Your task to perform on an android device: open chrome and create a bookmark for the current page Image 0: 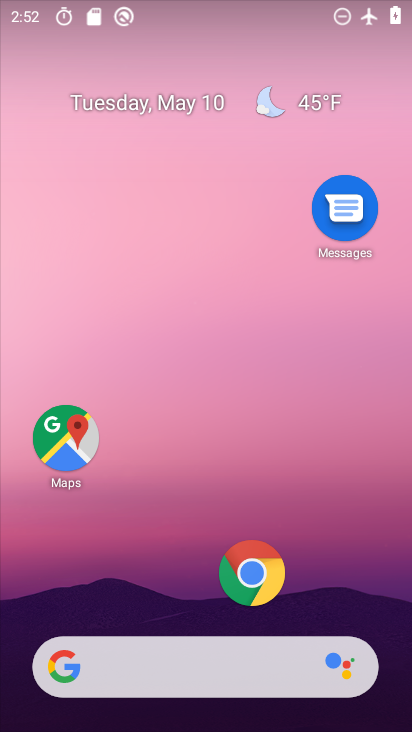
Step 0: drag from (149, 602) to (230, 337)
Your task to perform on an android device: open chrome and create a bookmark for the current page Image 1: 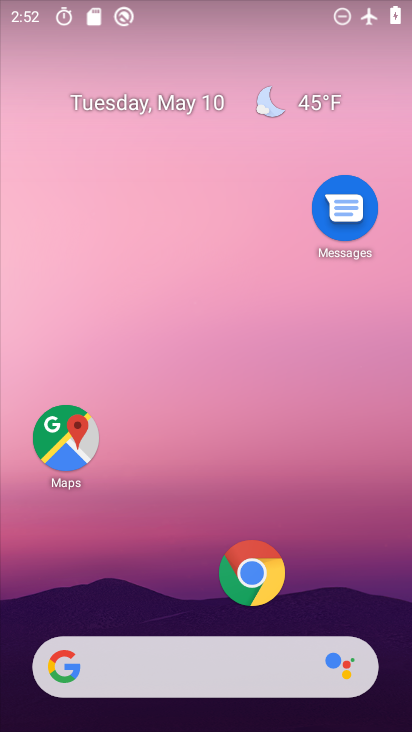
Step 1: drag from (167, 619) to (203, 316)
Your task to perform on an android device: open chrome and create a bookmark for the current page Image 2: 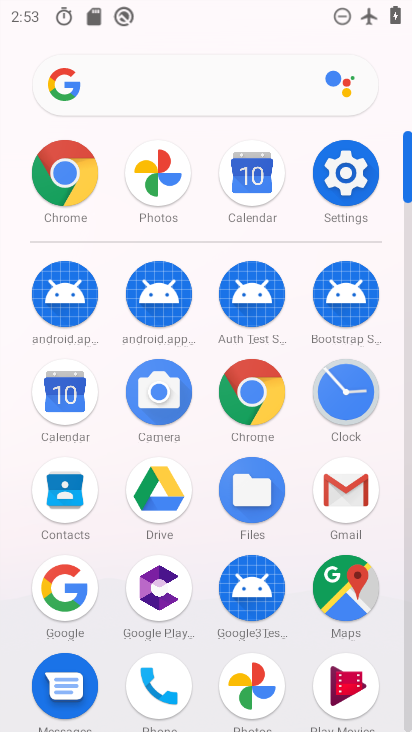
Step 2: drag from (201, 619) to (194, 42)
Your task to perform on an android device: open chrome and create a bookmark for the current page Image 3: 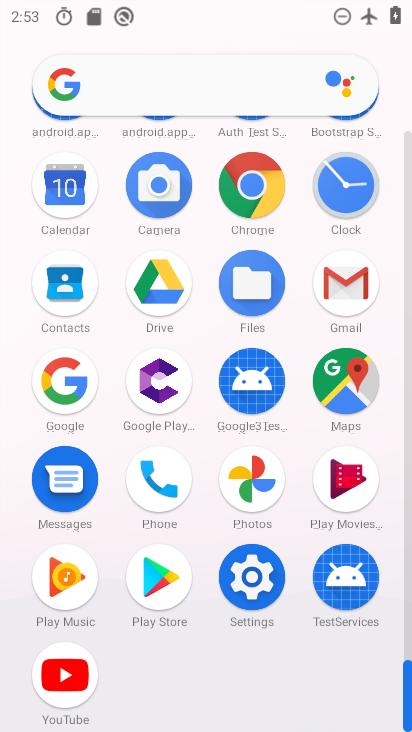
Step 3: click (260, 184)
Your task to perform on an android device: open chrome and create a bookmark for the current page Image 4: 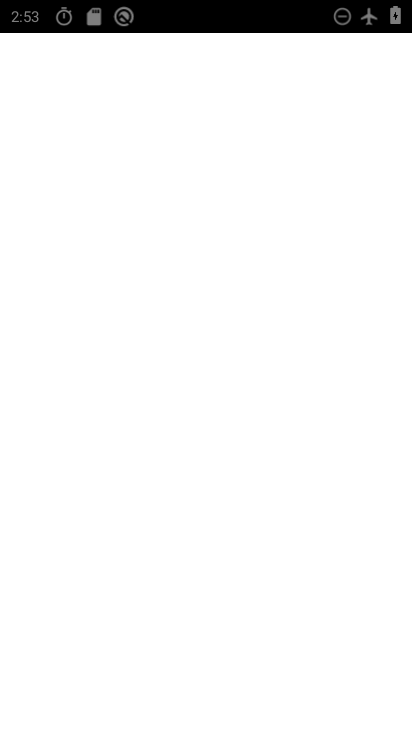
Step 4: click (260, 184)
Your task to perform on an android device: open chrome and create a bookmark for the current page Image 5: 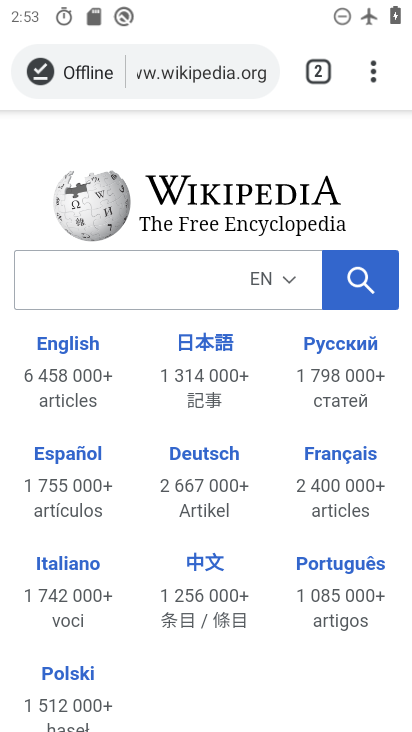
Step 5: click (377, 61)
Your task to perform on an android device: open chrome and create a bookmark for the current page Image 6: 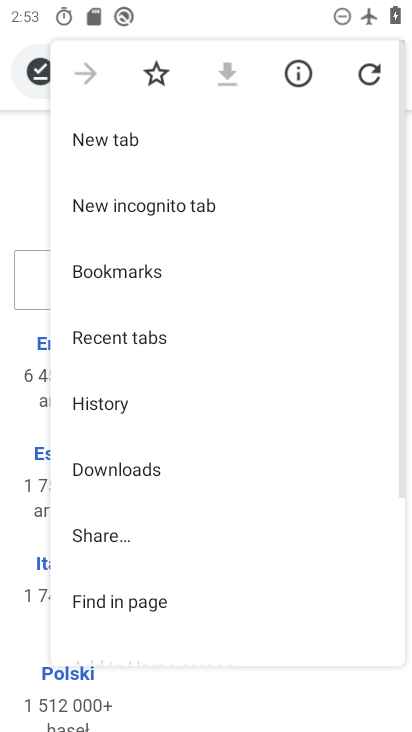
Step 6: drag from (249, 510) to (308, 177)
Your task to perform on an android device: open chrome and create a bookmark for the current page Image 7: 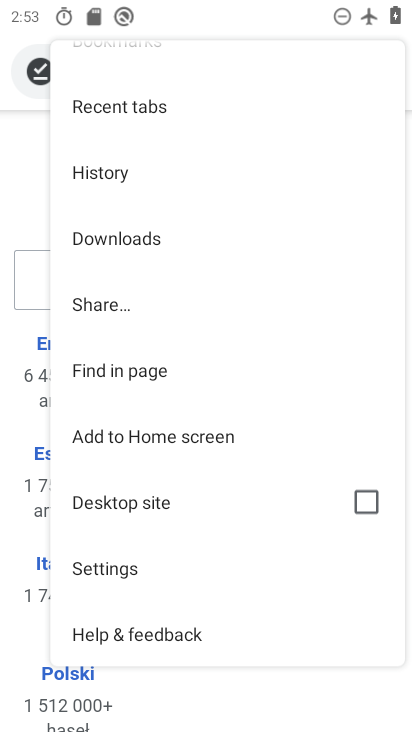
Step 7: drag from (181, 223) to (325, 535)
Your task to perform on an android device: open chrome and create a bookmark for the current page Image 8: 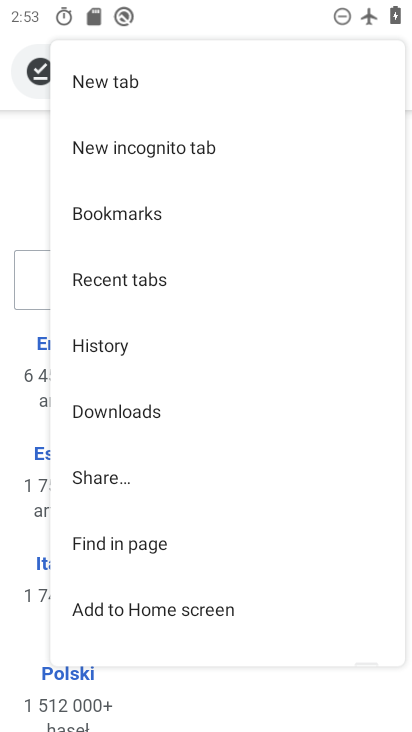
Step 8: click (139, 218)
Your task to perform on an android device: open chrome and create a bookmark for the current page Image 9: 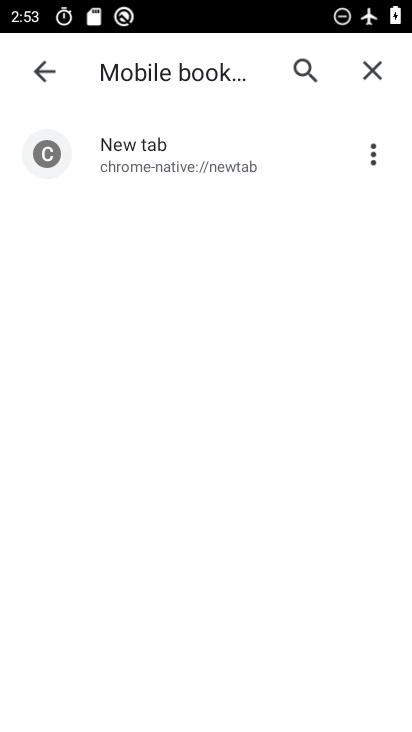
Step 9: click (375, 61)
Your task to perform on an android device: open chrome and create a bookmark for the current page Image 10: 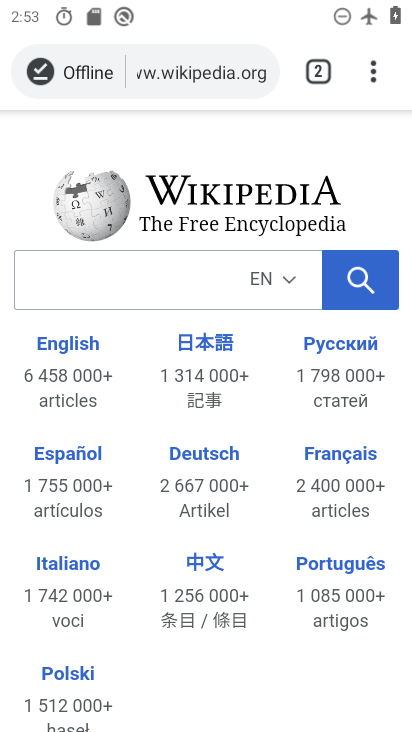
Step 10: click (65, 350)
Your task to perform on an android device: open chrome and create a bookmark for the current page Image 11: 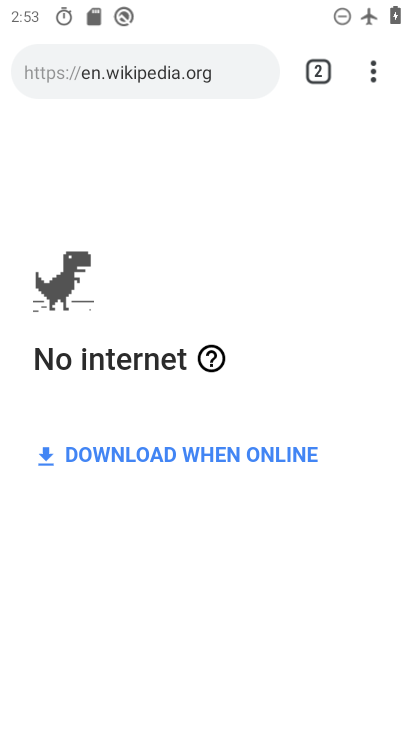
Step 11: click (379, 79)
Your task to perform on an android device: open chrome and create a bookmark for the current page Image 12: 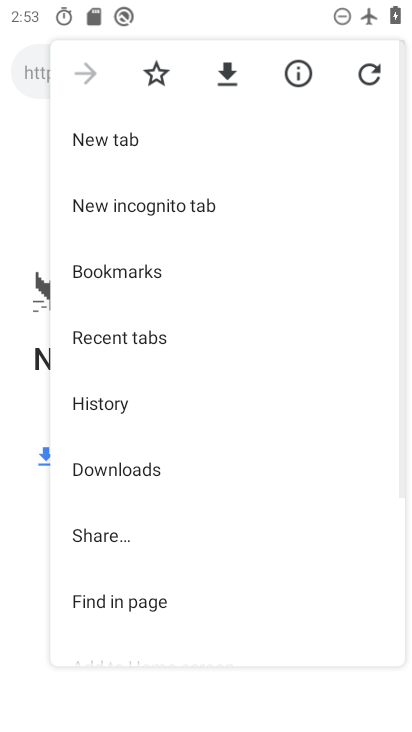
Step 12: click (148, 75)
Your task to perform on an android device: open chrome and create a bookmark for the current page Image 13: 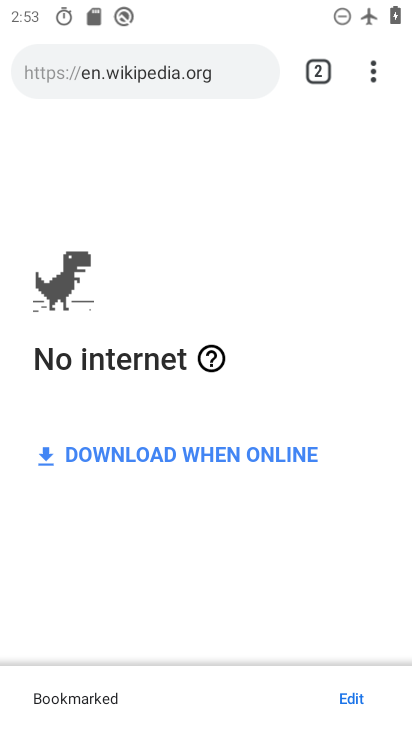
Step 13: task complete